Your task to perform on an android device: Open the phone app and click the voicemail tab. Image 0: 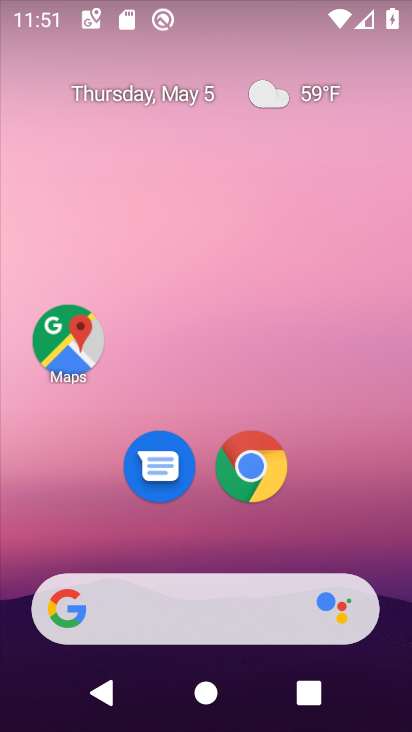
Step 0: drag from (371, 547) to (292, 170)
Your task to perform on an android device: Open the phone app and click the voicemail tab. Image 1: 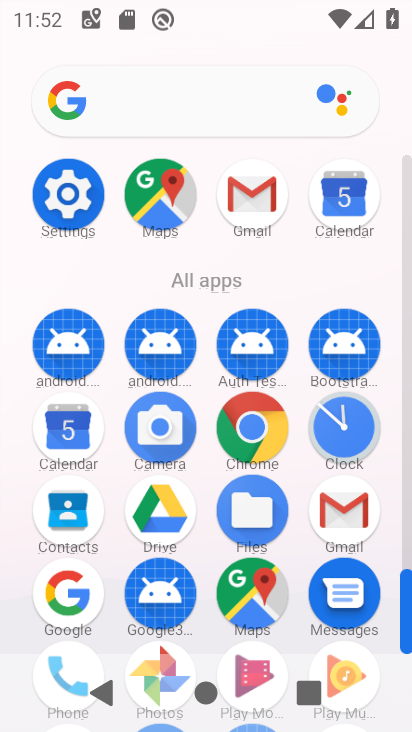
Step 1: click (60, 649)
Your task to perform on an android device: Open the phone app and click the voicemail tab. Image 2: 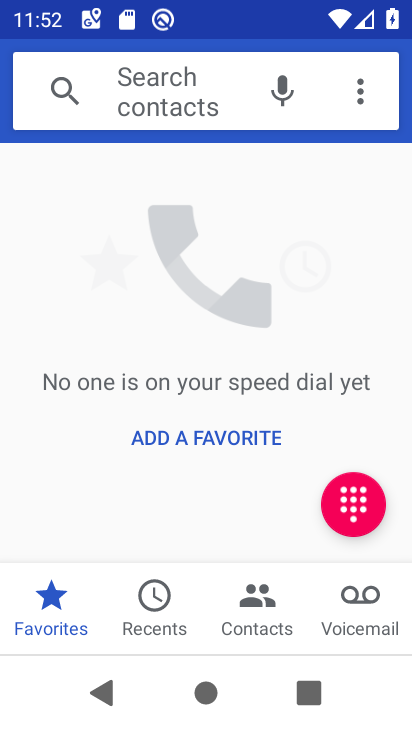
Step 2: click (339, 609)
Your task to perform on an android device: Open the phone app and click the voicemail tab. Image 3: 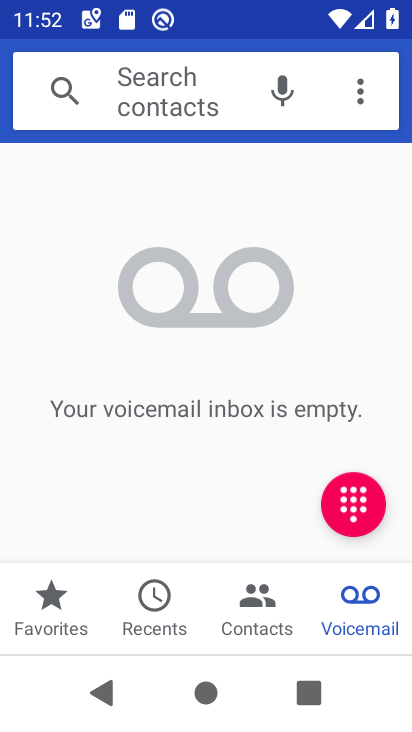
Step 3: task complete